Your task to perform on an android device: Open the calendar and show me this week's events Image 0: 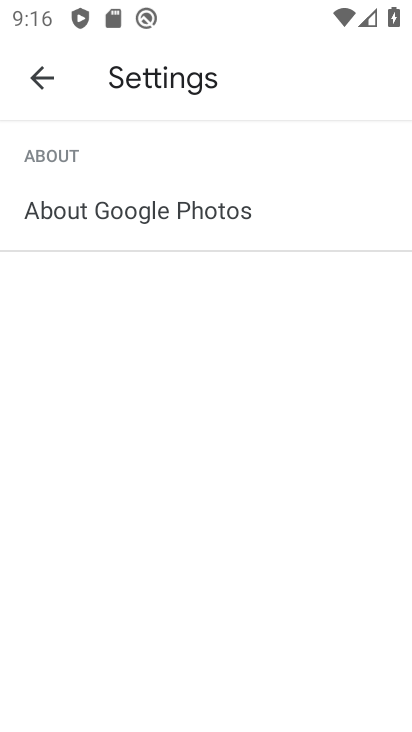
Step 0: press home button
Your task to perform on an android device: Open the calendar and show me this week's events Image 1: 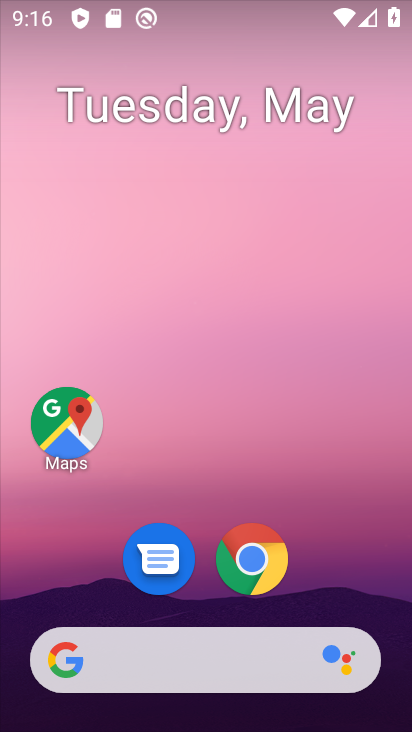
Step 1: drag from (377, 564) to (387, 124)
Your task to perform on an android device: Open the calendar and show me this week's events Image 2: 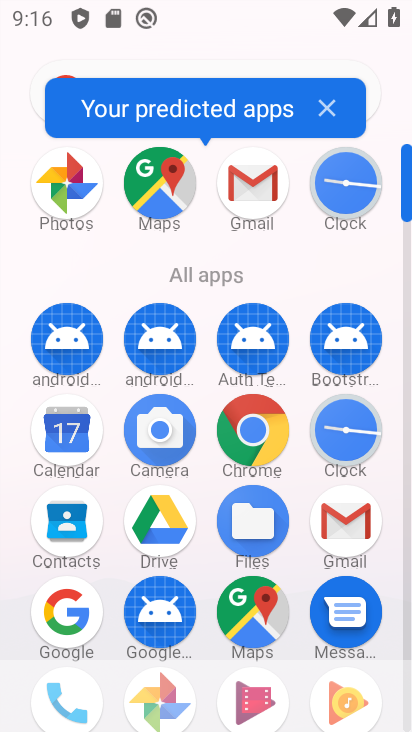
Step 2: click (82, 425)
Your task to perform on an android device: Open the calendar and show me this week's events Image 3: 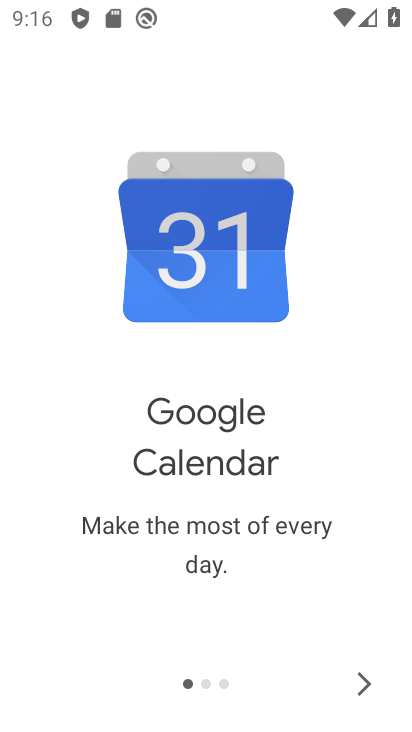
Step 3: click (366, 683)
Your task to perform on an android device: Open the calendar and show me this week's events Image 4: 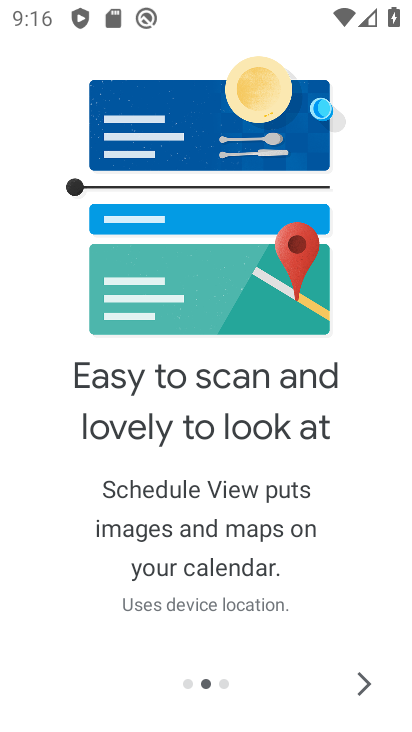
Step 4: click (365, 682)
Your task to perform on an android device: Open the calendar and show me this week's events Image 5: 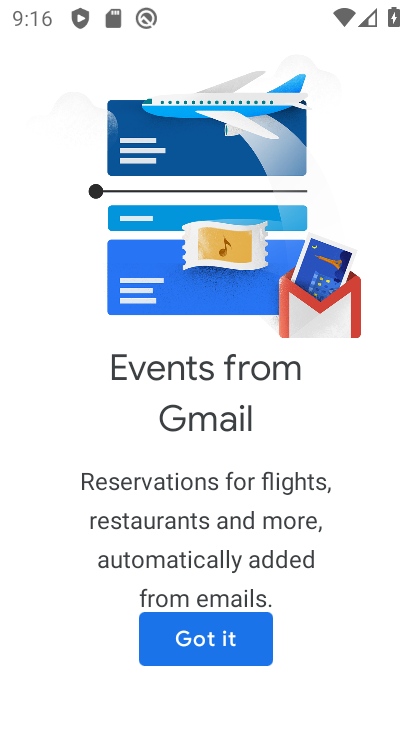
Step 5: click (365, 682)
Your task to perform on an android device: Open the calendar and show me this week's events Image 6: 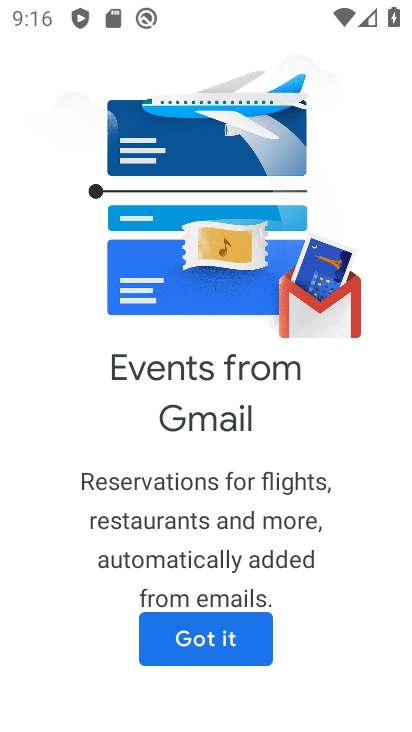
Step 6: click (241, 652)
Your task to perform on an android device: Open the calendar and show me this week's events Image 7: 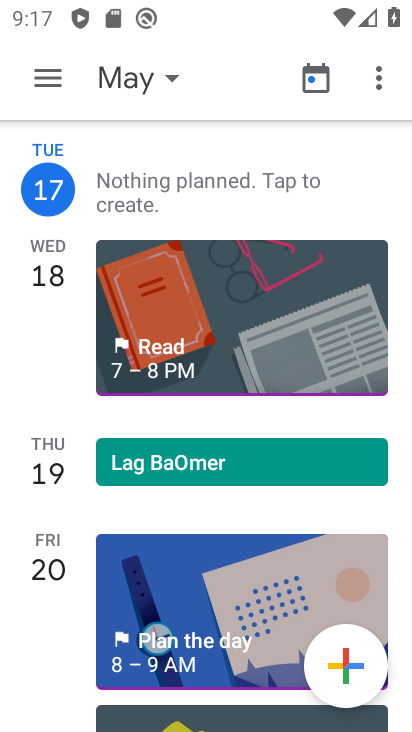
Step 7: click (44, 72)
Your task to perform on an android device: Open the calendar and show me this week's events Image 8: 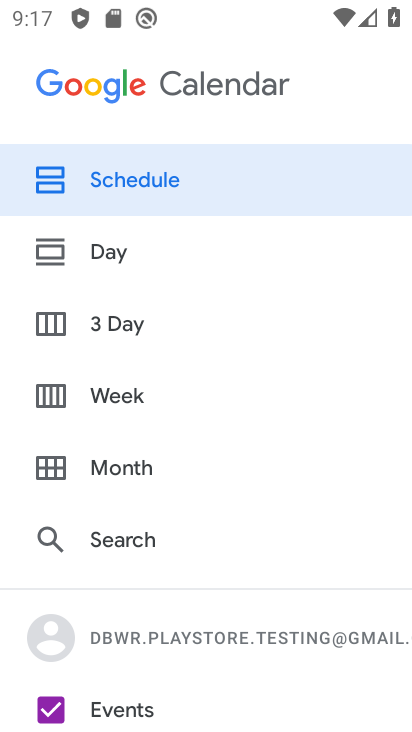
Step 8: click (111, 407)
Your task to perform on an android device: Open the calendar and show me this week's events Image 9: 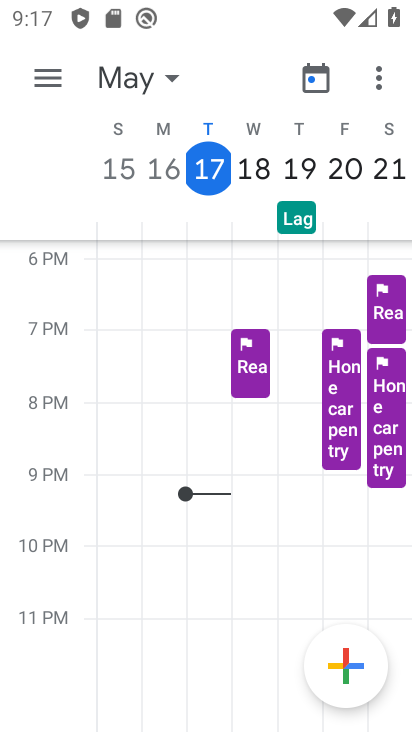
Step 9: task complete